Your task to perform on an android device: change timer sound Image 0: 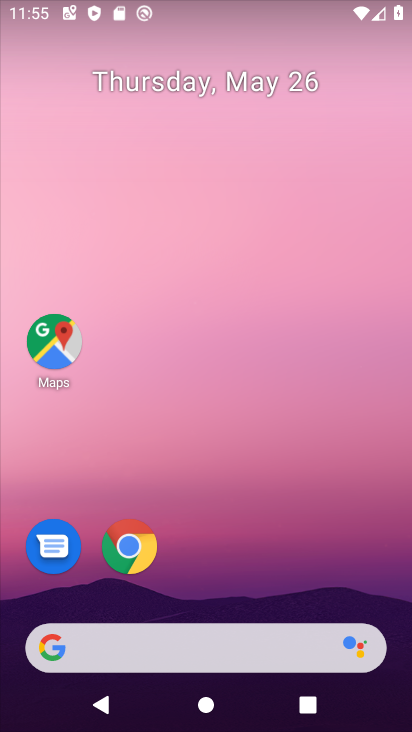
Step 0: drag from (269, 517) to (181, 25)
Your task to perform on an android device: change timer sound Image 1: 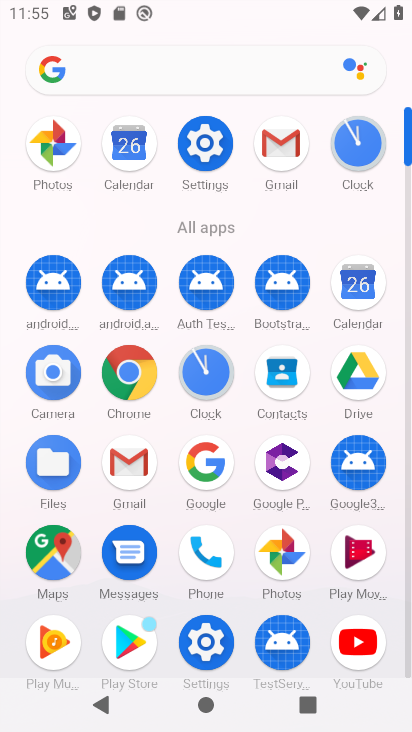
Step 1: click (355, 136)
Your task to perform on an android device: change timer sound Image 2: 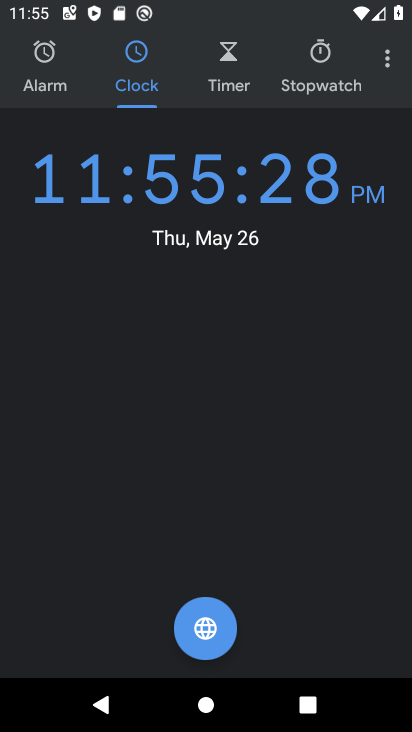
Step 2: click (234, 59)
Your task to perform on an android device: change timer sound Image 3: 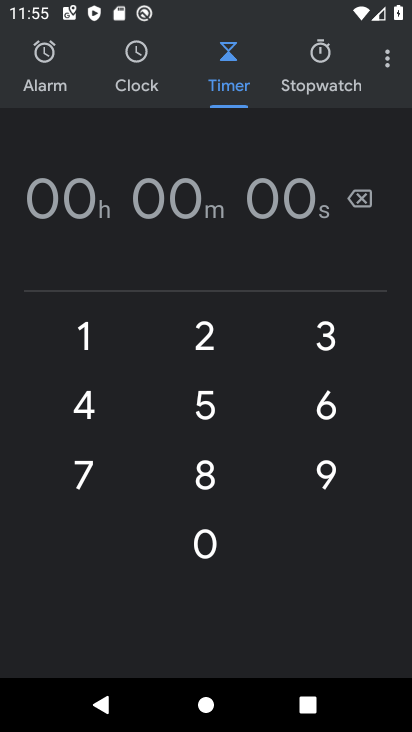
Step 3: click (389, 56)
Your task to perform on an android device: change timer sound Image 4: 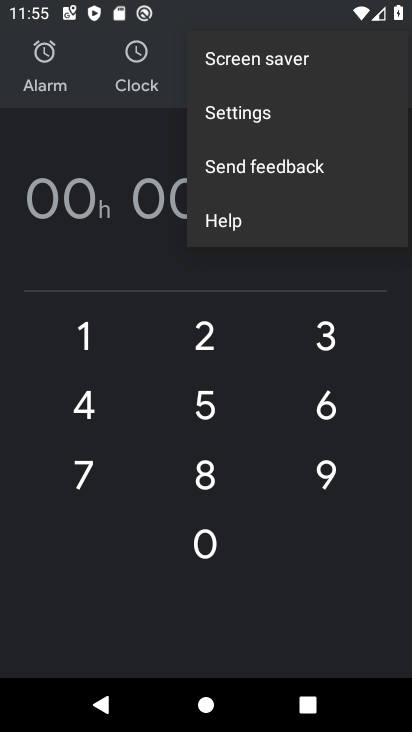
Step 4: click (254, 110)
Your task to perform on an android device: change timer sound Image 5: 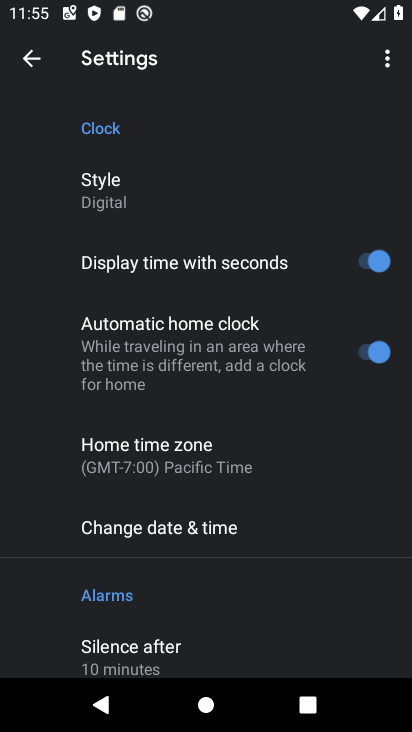
Step 5: drag from (264, 573) to (192, 240)
Your task to perform on an android device: change timer sound Image 6: 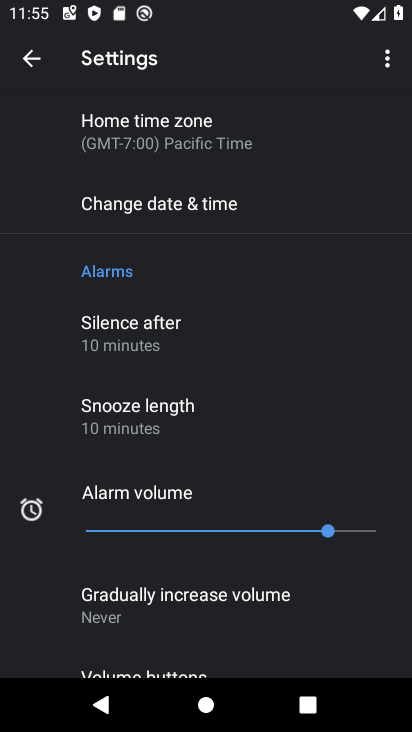
Step 6: drag from (253, 421) to (226, 154)
Your task to perform on an android device: change timer sound Image 7: 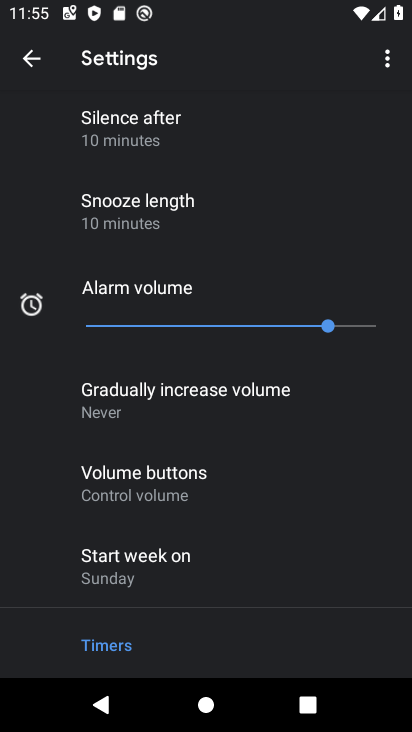
Step 7: drag from (247, 552) to (245, 231)
Your task to perform on an android device: change timer sound Image 8: 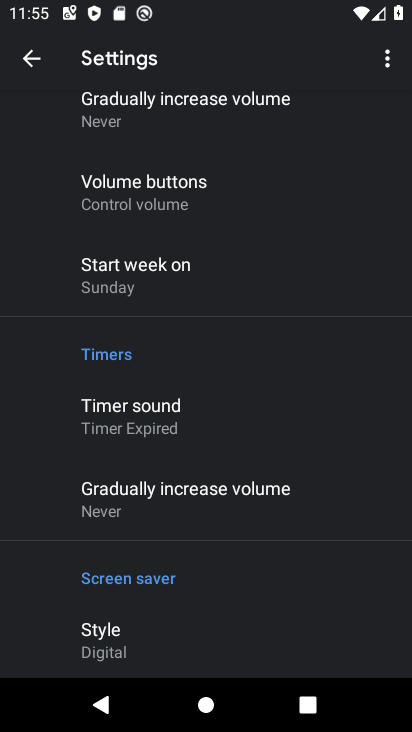
Step 8: click (133, 405)
Your task to perform on an android device: change timer sound Image 9: 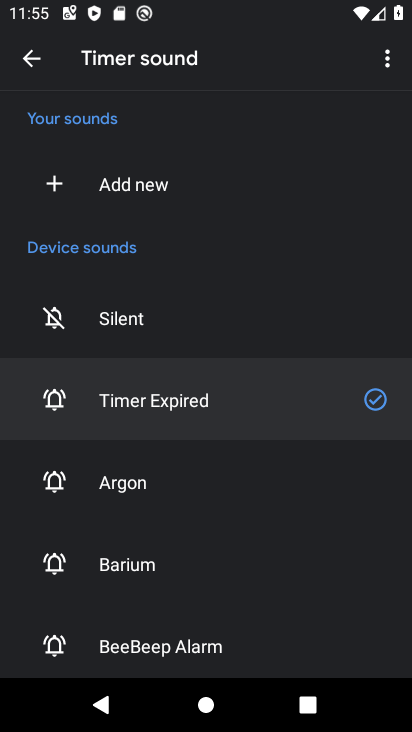
Step 9: click (113, 492)
Your task to perform on an android device: change timer sound Image 10: 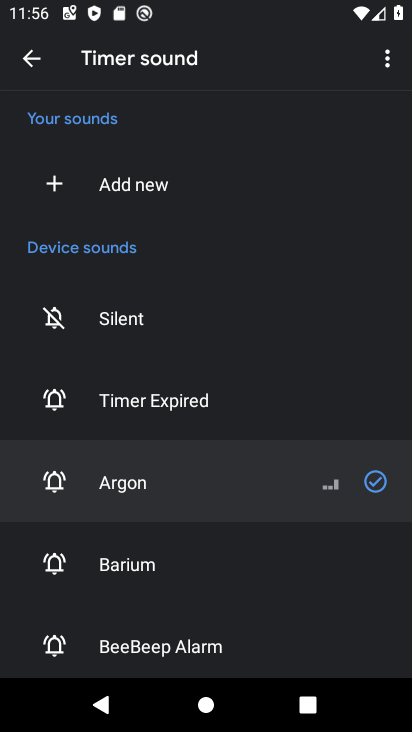
Step 10: task complete